Your task to perform on an android device: turn on showing notifications on the lock screen Image 0: 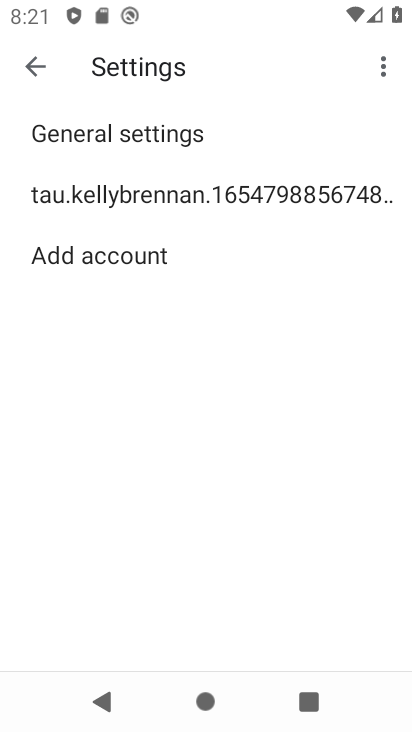
Step 0: press home button
Your task to perform on an android device: turn on showing notifications on the lock screen Image 1: 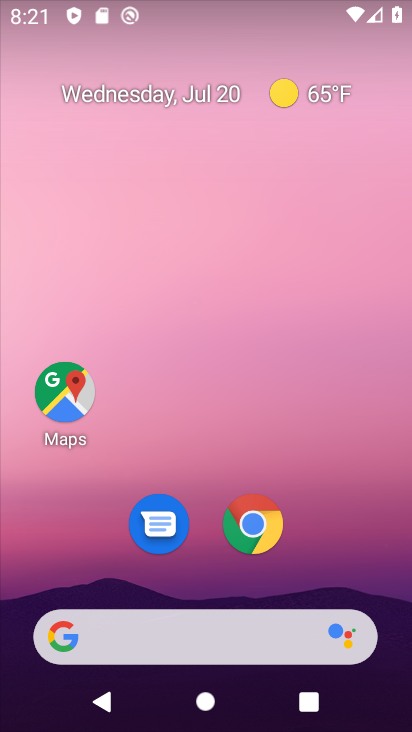
Step 1: drag from (357, 545) to (368, 74)
Your task to perform on an android device: turn on showing notifications on the lock screen Image 2: 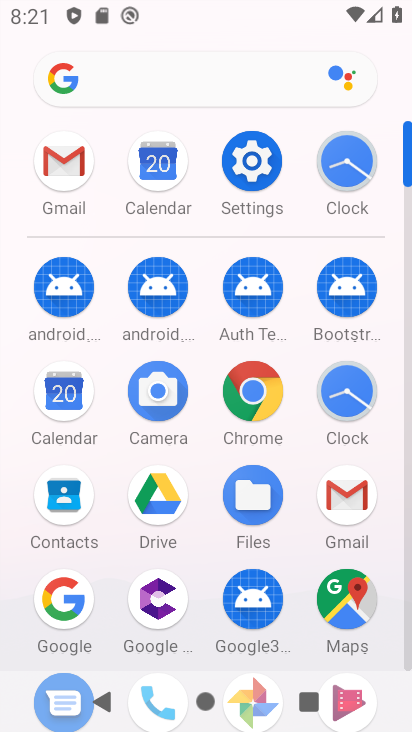
Step 2: click (251, 159)
Your task to perform on an android device: turn on showing notifications on the lock screen Image 3: 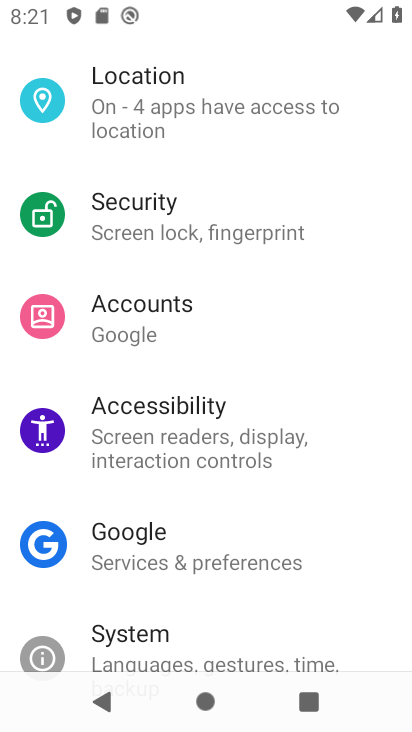
Step 3: drag from (229, 163) to (223, 576)
Your task to perform on an android device: turn on showing notifications on the lock screen Image 4: 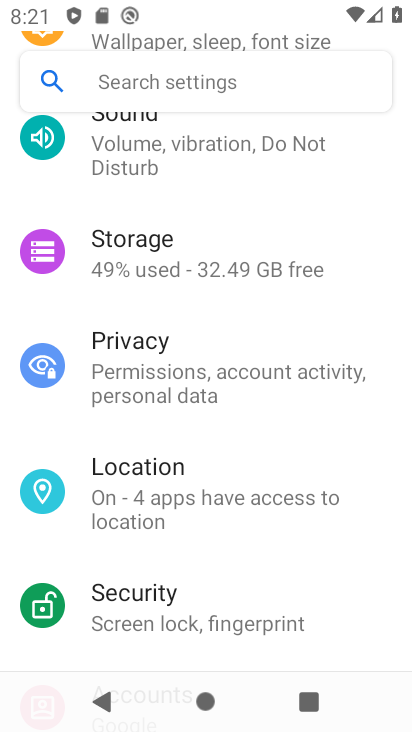
Step 4: drag from (223, 222) to (219, 578)
Your task to perform on an android device: turn on showing notifications on the lock screen Image 5: 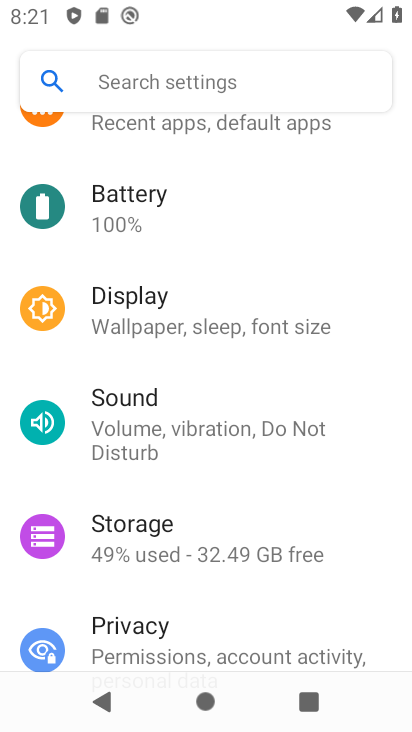
Step 5: drag from (238, 279) to (238, 565)
Your task to perform on an android device: turn on showing notifications on the lock screen Image 6: 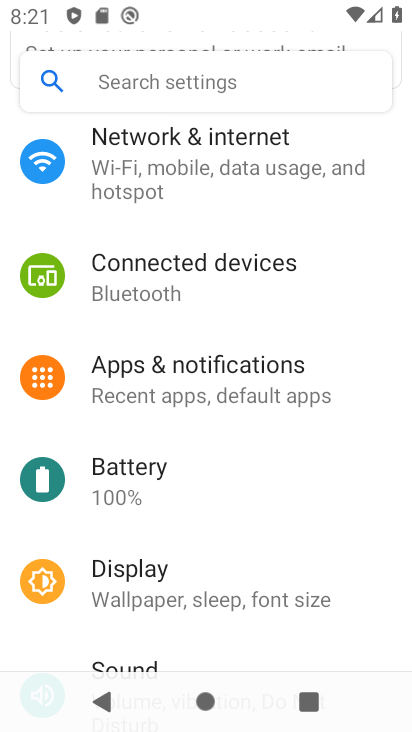
Step 6: click (259, 373)
Your task to perform on an android device: turn on showing notifications on the lock screen Image 7: 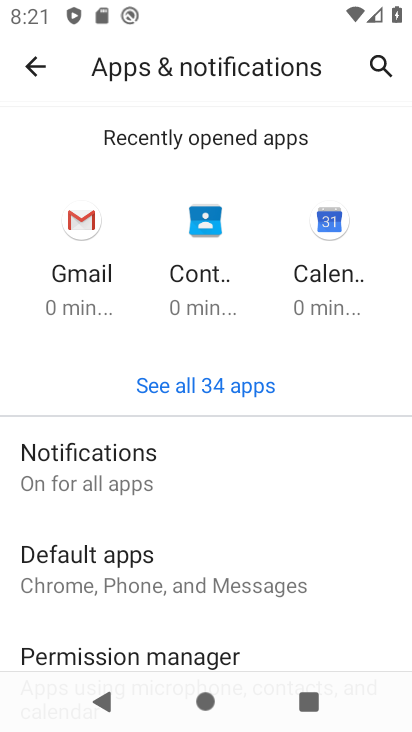
Step 7: click (145, 468)
Your task to perform on an android device: turn on showing notifications on the lock screen Image 8: 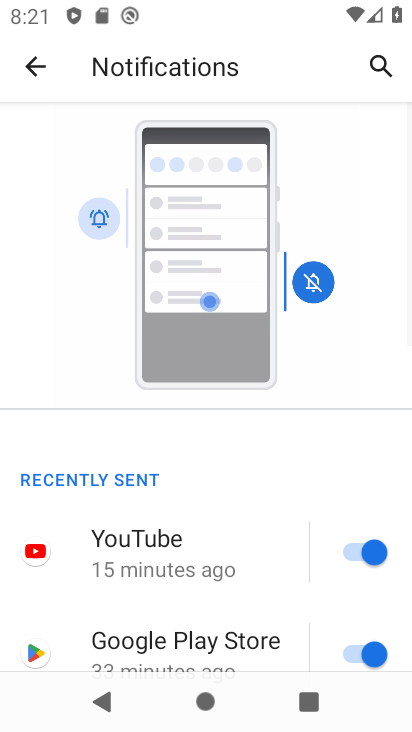
Step 8: drag from (223, 587) to (238, 173)
Your task to perform on an android device: turn on showing notifications on the lock screen Image 9: 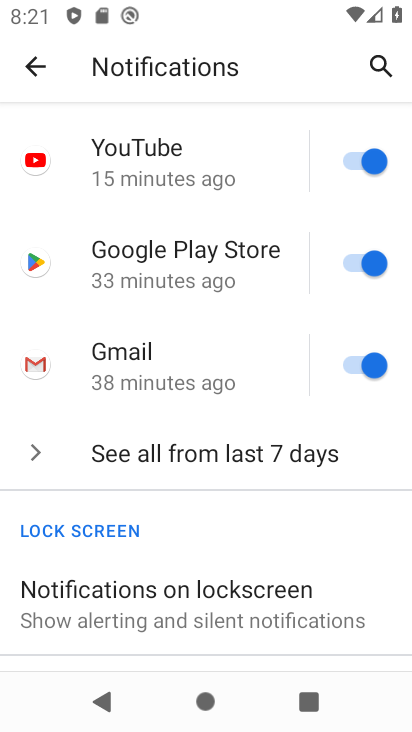
Step 9: click (152, 596)
Your task to perform on an android device: turn on showing notifications on the lock screen Image 10: 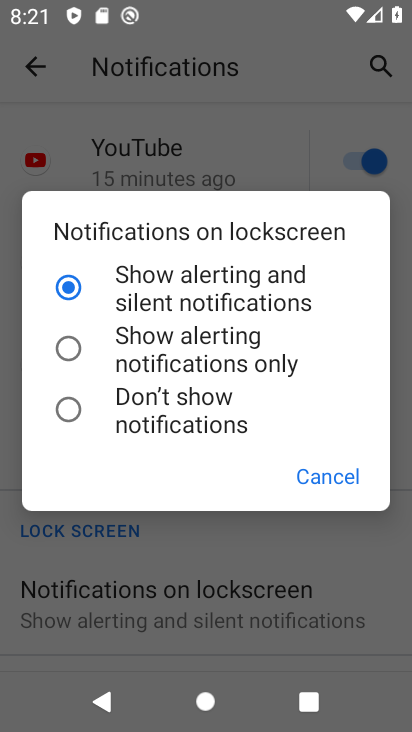
Step 10: click (321, 475)
Your task to perform on an android device: turn on showing notifications on the lock screen Image 11: 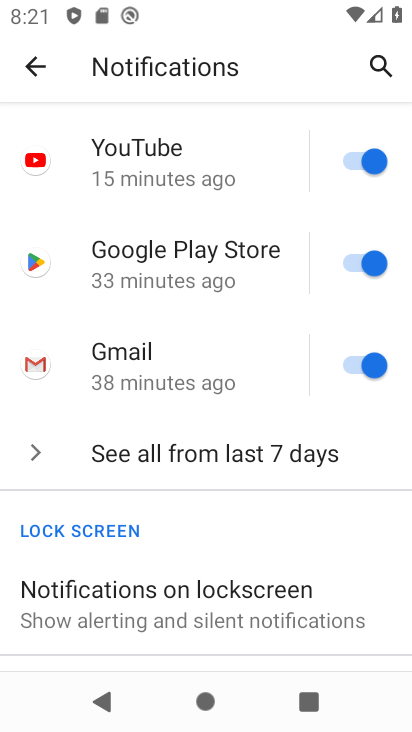
Step 11: task complete